Your task to perform on an android device: Open calendar and show me the first week of next month Image 0: 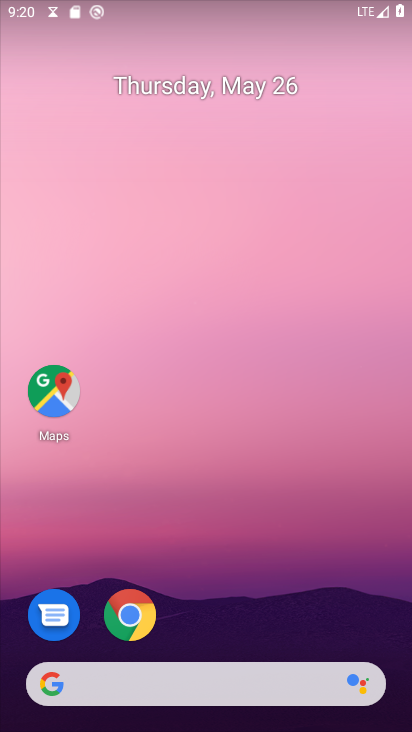
Step 0: drag from (243, 630) to (276, 258)
Your task to perform on an android device: Open calendar and show me the first week of next month Image 1: 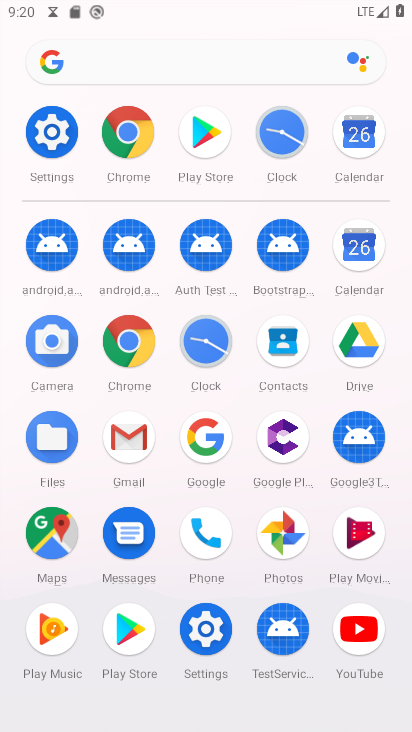
Step 1: click (351, 240)
Your task to perform on an android device: Open calendar and show me the first week of next month Image 2: 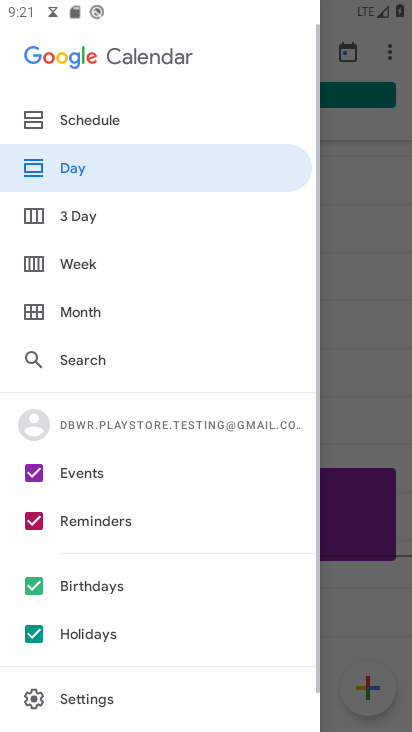
Step 2: click (85, 264)
Your task to perform on an android device: Open calendar and show me the first week of next month Image 3: 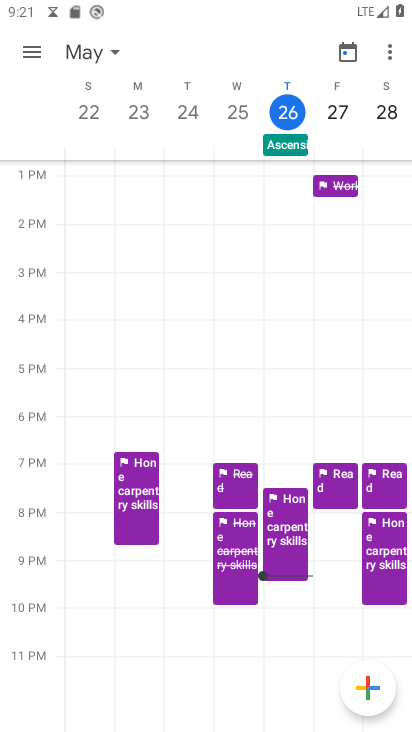
Step 3: click (24, 54)
Your task to perform on an android device: Open calendar and show me the first week of next month Image 4: 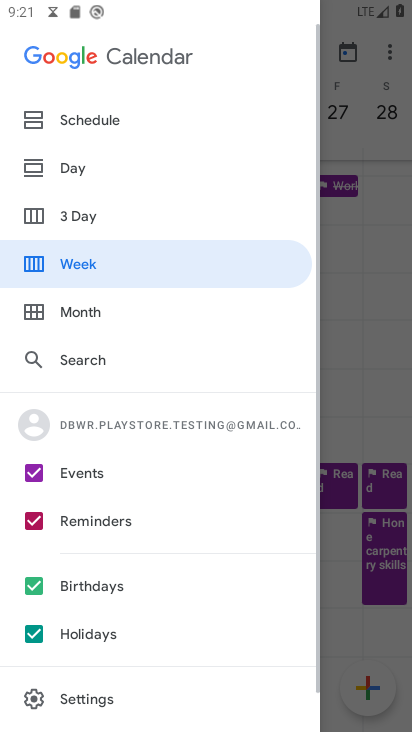
Step 4: click (115, 317)
Your task to perform on an android device: Open calendar and show me the first week of next month Image 5: 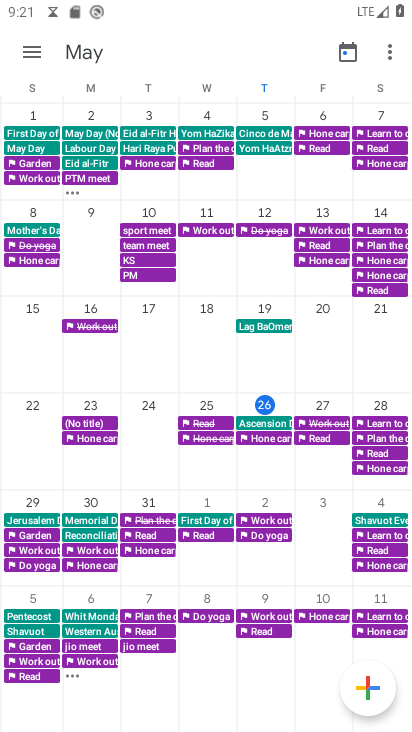
Step 5: task complete